Your task to perform on an android device: check the backup settings in the google photos Image 0: 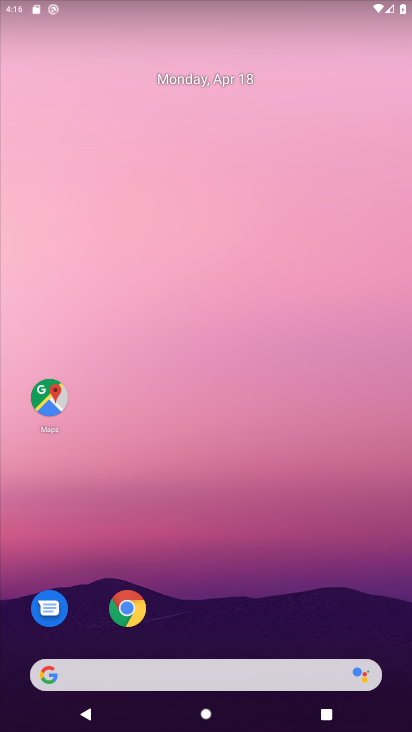
Step 0: drag from (224, 654) to (222, 177)
Your task to perform on an android device: check the backup settings in the google photos Image 1: 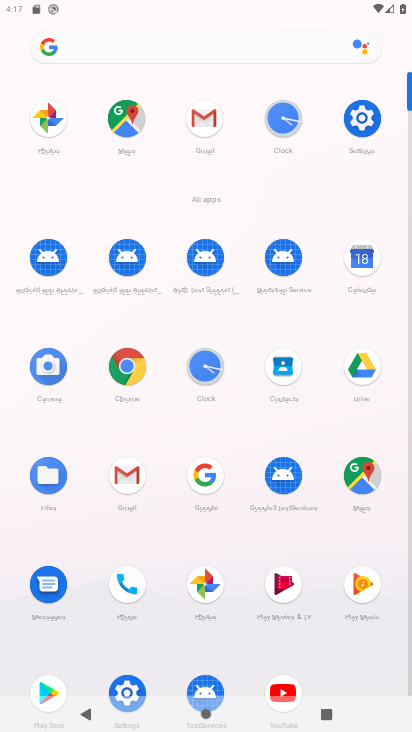
Step 1: click (41, 111)
Your task to perform on an android device: check the backup settings in the google photos Image 2: 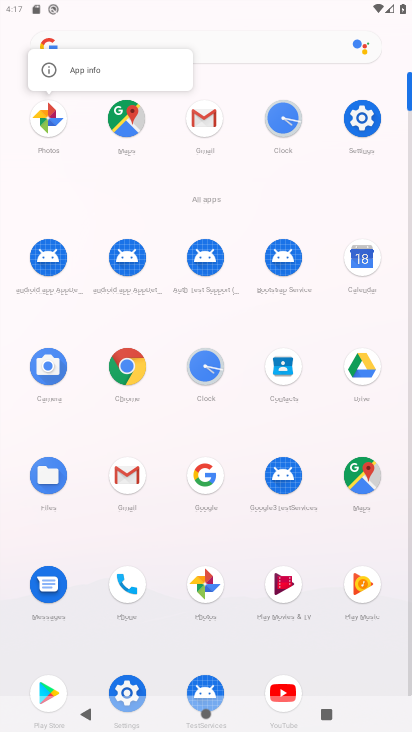
Step 2: click (48, 123)
Your task to perform on an android device: check the backup settings in the google photos Image 3: 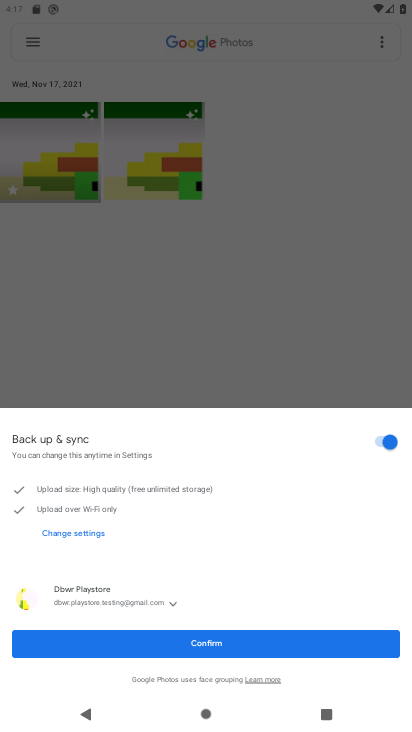
Step 3: click (207, 648)
Your task to perform on an android device: check the backup settings in the google photos Image 4: 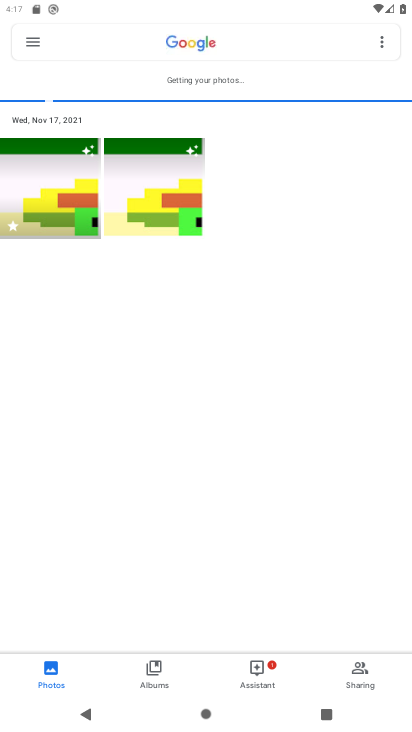
Step 4: click (29, 44)
Your task to perform on an android device: check the backup settings in the google photos Image 5: 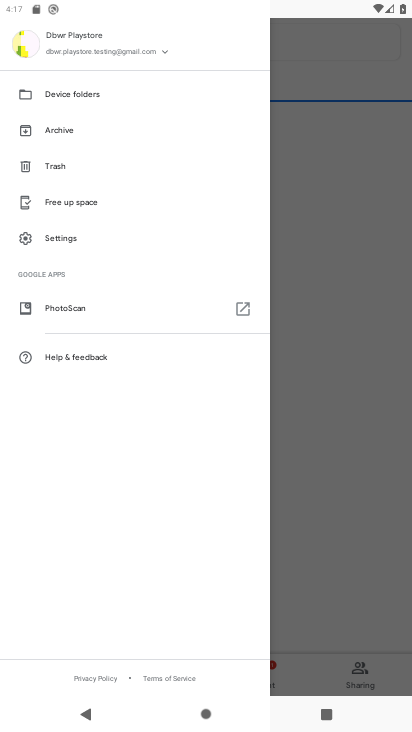
Step 5: click (65, 241)
Your task to perform on an android device: check the backup settings in the google photos Image 6: 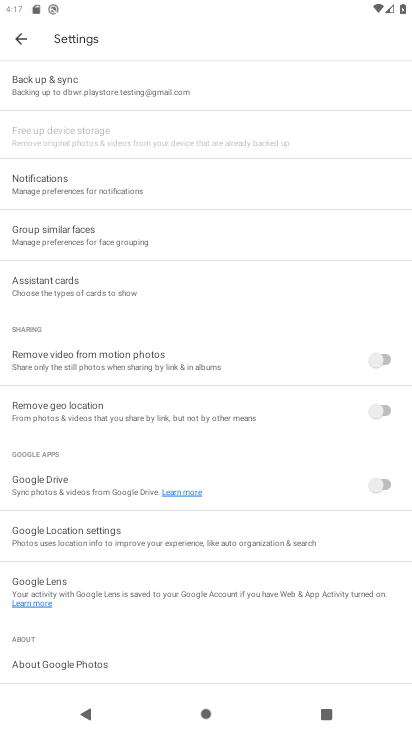
Step 6: click (84, 90)
Your task to perform on an android device: check the backup settings in the google photos Image 7: 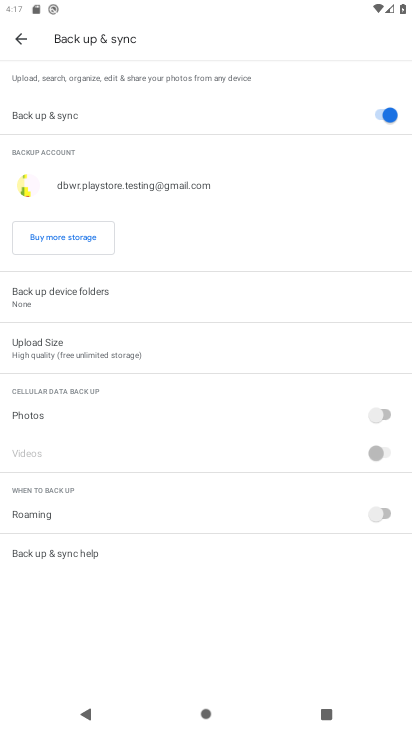
Step 7: click (53, 113)
Your task to perform on an android device: check the backup settings in the google photos Image 8: 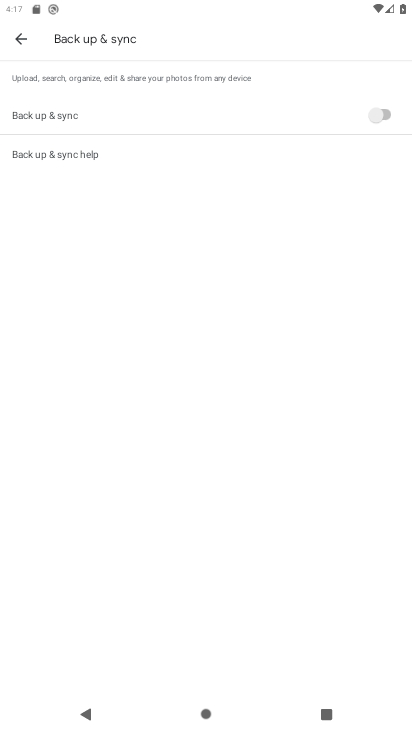
Step 8: click (389, 116)
Your task to perform on an android device: check the backup settings in the google photos Image 9: 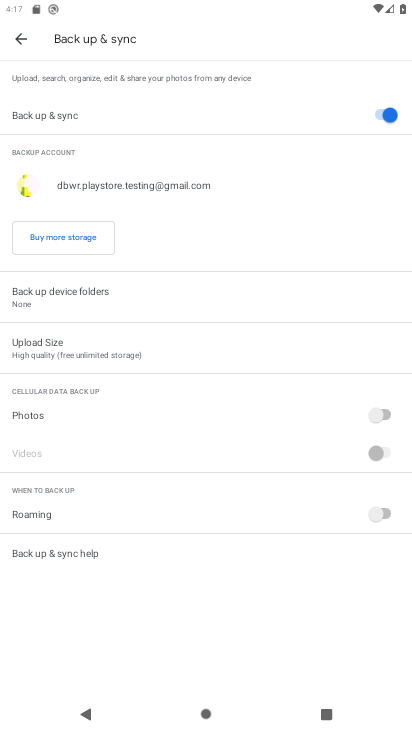
Step 9: task complete